Your task to perform on an android device: change your default location settings in chrome Image 0: 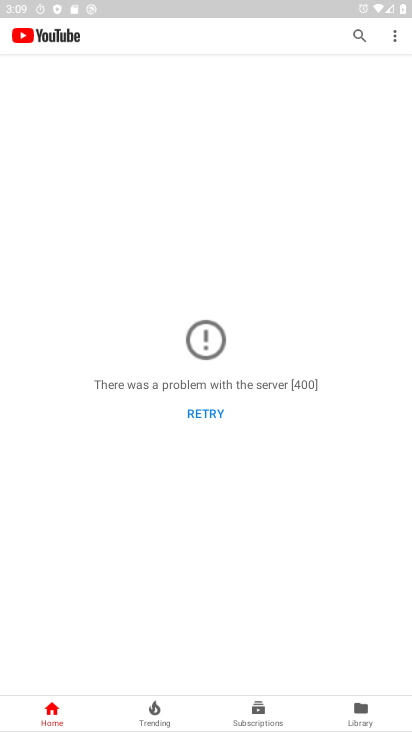
Step 0: press home button
Your task to perform on an android device: change your default location settings in chrome Image 1: 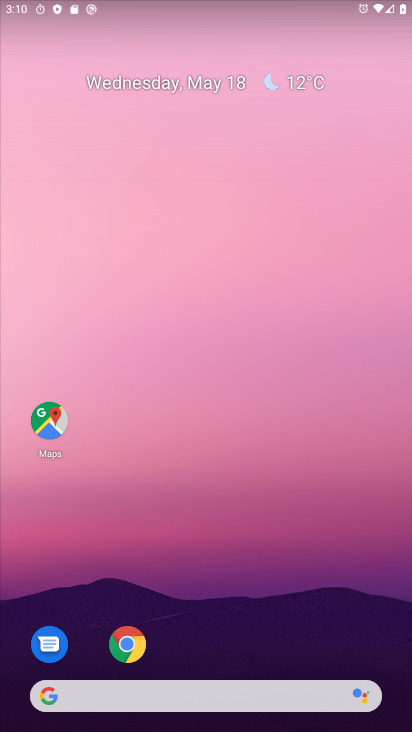
Step 1: click (124, 639)
Your task to perform on an android device: change your default location settings in chrome Image 2: 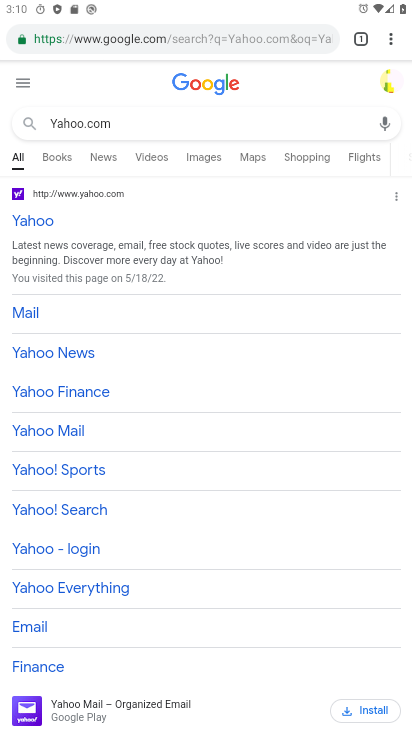
Step 2: click (386, 34)
Your task to perform on an android device: change your default location settings in chrome Image 3: 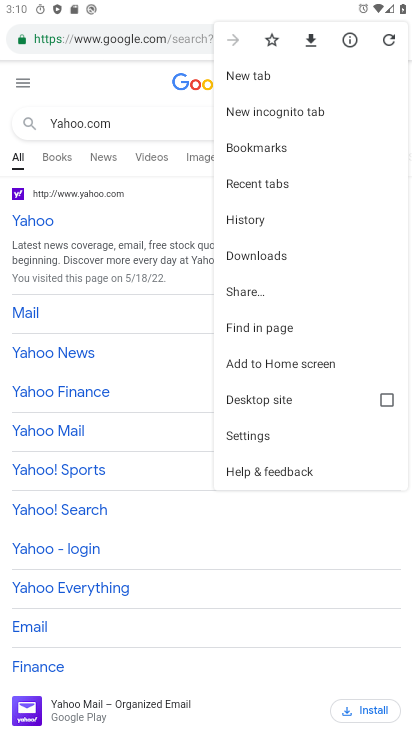
Step 3: click (251, 429)
Your task to perform on an android device: change your default location settings in chrome Image 4: 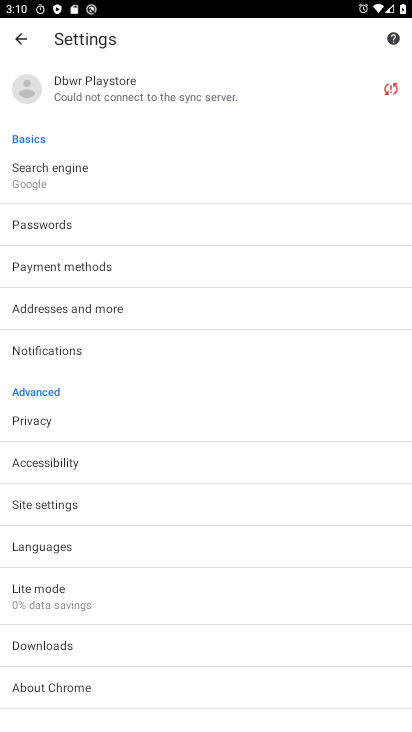
Step 4: click (50, 502)
Your task to perform on an android device: change your default location settings in chrome Image 5: 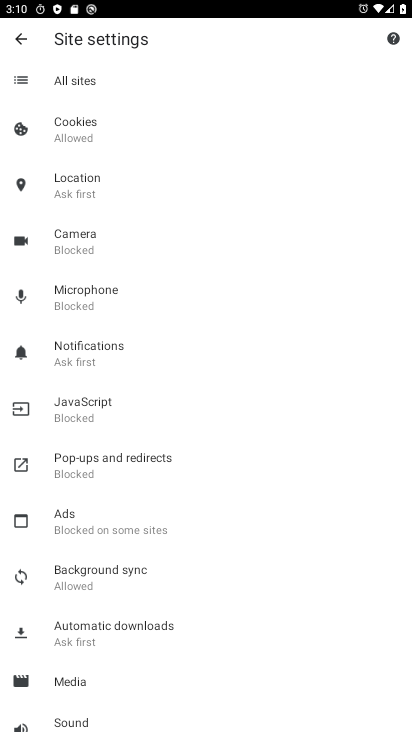
Step 5: click (62, 182)
Your task to perform on an android device: change your default location settings in chrome Image 6: 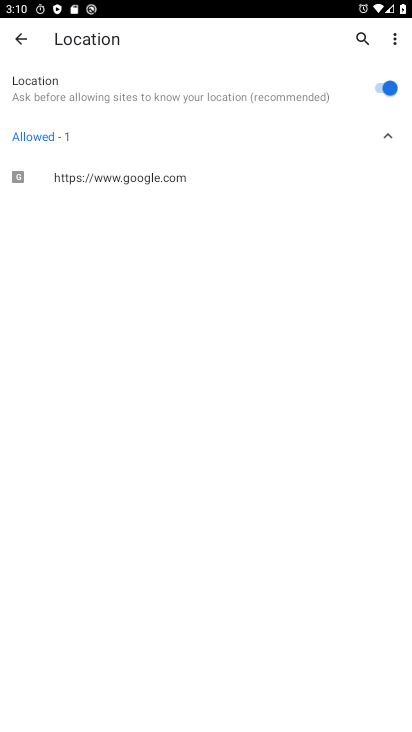
Step 6: task complete